Your task to perform on an android device: stop showing notifications on the lock screen Image 0: 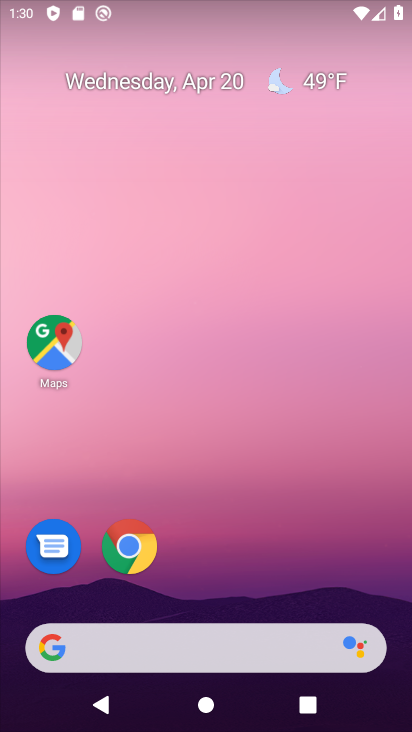
Step 0: drag from (268, 564) to (383, 81)
Your task to perform on an android device: stop showing notifications on the lock screen Image 1: 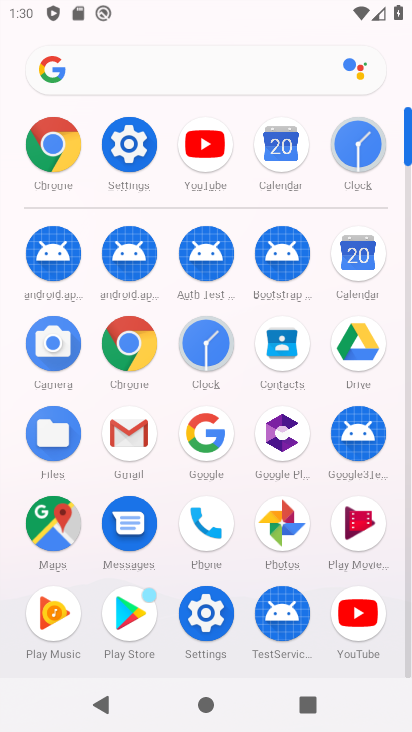
Step 1: click (140, 136)
Your task to perform on an android device: stop showing notifications on the lock screen Image 2: 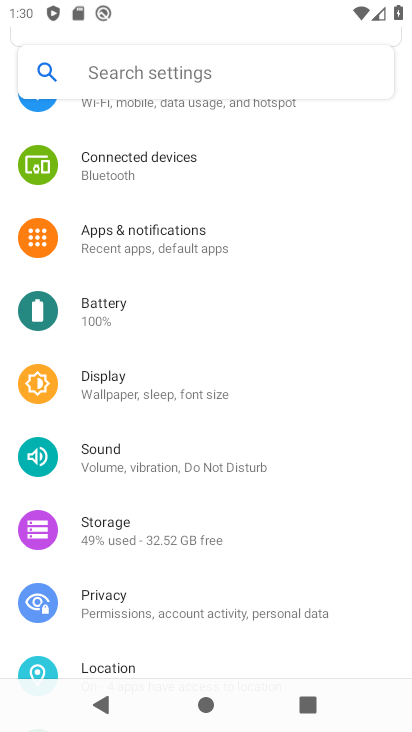
Step 2: click (138, 224)
Your task to perform on an android device: stop showing notifications on the lock screen Image 3: 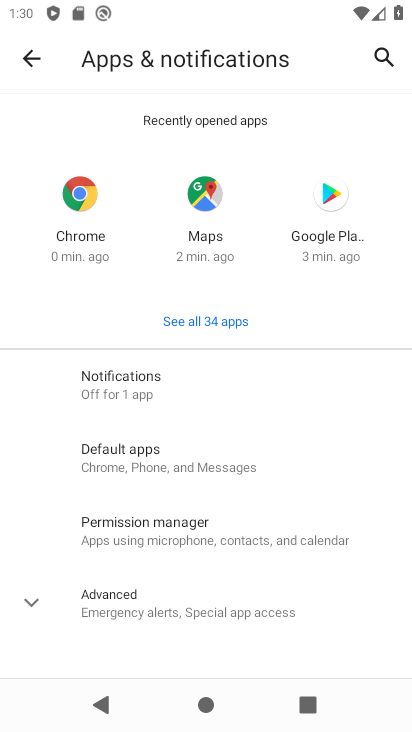
Step 3: click (182, 374)
Your task to perform on an android device: stop showing notifications on the lock screen Image 4: 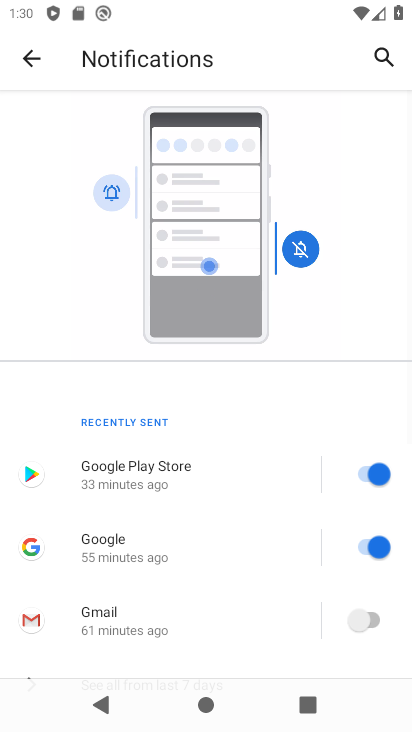
Step 4: drag from (155, 592) to (322, 51)
Your task to perform on an android device: stop showing notifications on the lock screen Image 5: 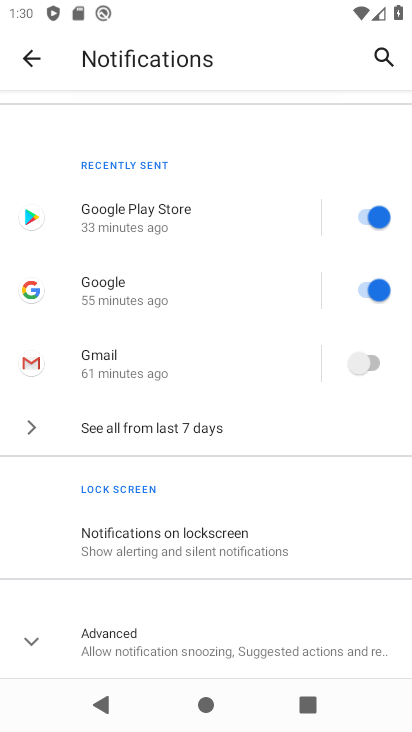
Step 5: click (176, 529)
Your task to perform on an android device: stop showing notifications on the lock screen Image 6: 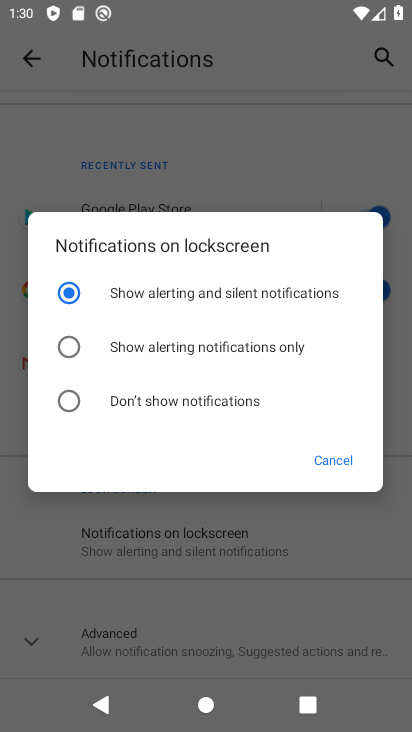
Step 6: click (70, 401)
Your task to perform on an android device: stop showing notifications on the lock screen Image 7: 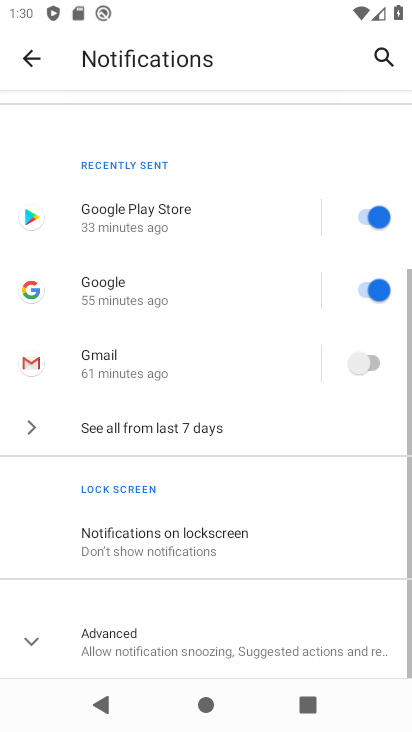
Step 7: task complete